Your task to perform on an android device: turn off location history Image 0: 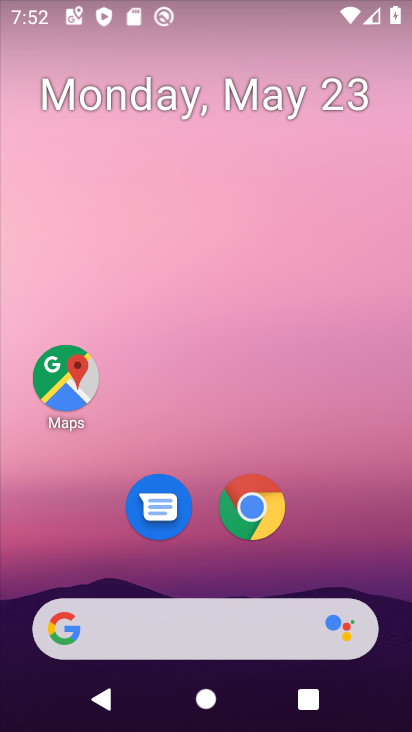
Step 0: drag from (349, 542) to (304, 192)
Your task to perform on an android device: turn off location history Image 1: 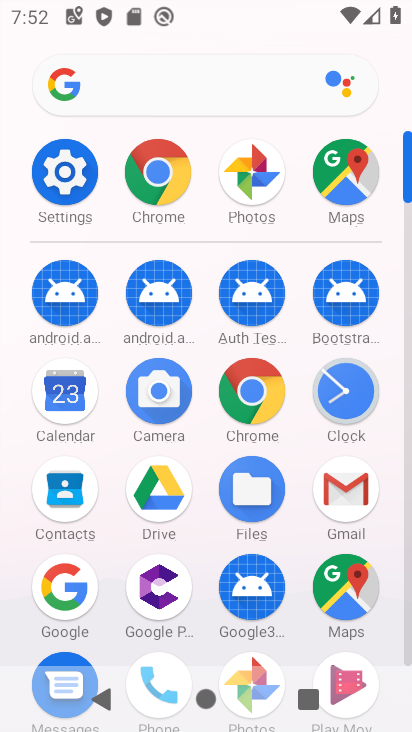
Step 1: click (58, 177)
Your task to perform on an android device: turn off location history Image 2: 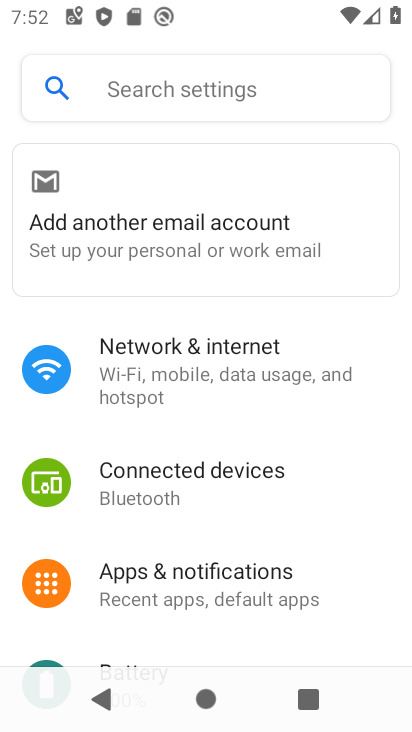
Step 2: drag from (316, 593) to (307, 185)
Your task to perform on an android device: turn off location history Image 3: 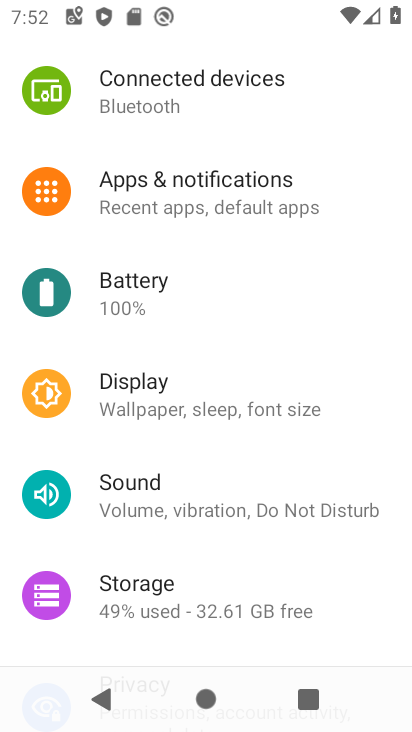
Step 3: drag from (258, 607) to (273, 241)
Your task to perform on an android device: turn off location history Image 4: 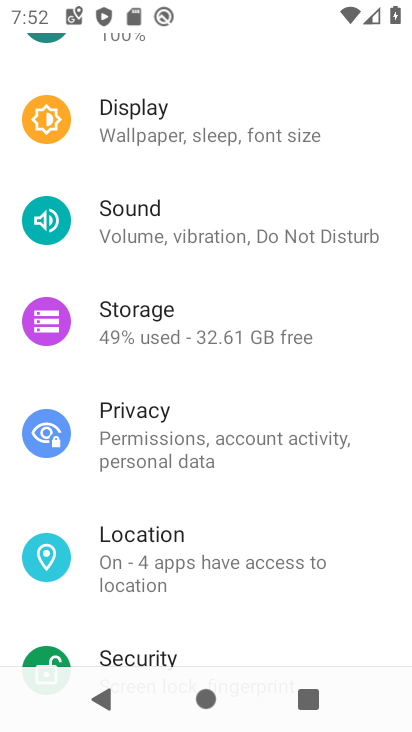
Step 4: click (167, 574)
Your task to perform on an android device: turn off location history Image 5: 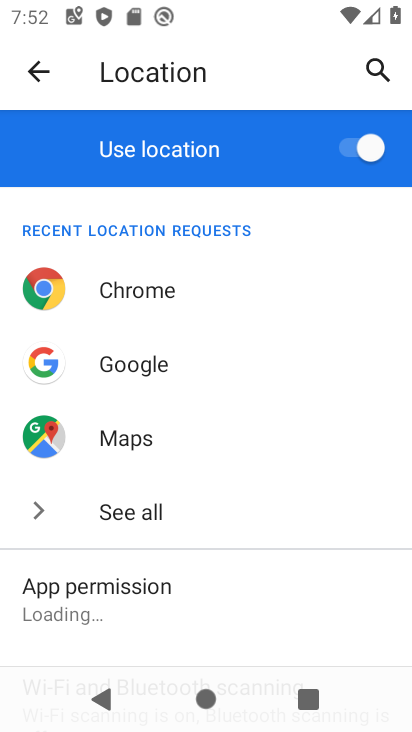
Step 5: drag from (176, 617) to (250, 285)
Your task to perform on an android device: turn off location history Image 6: 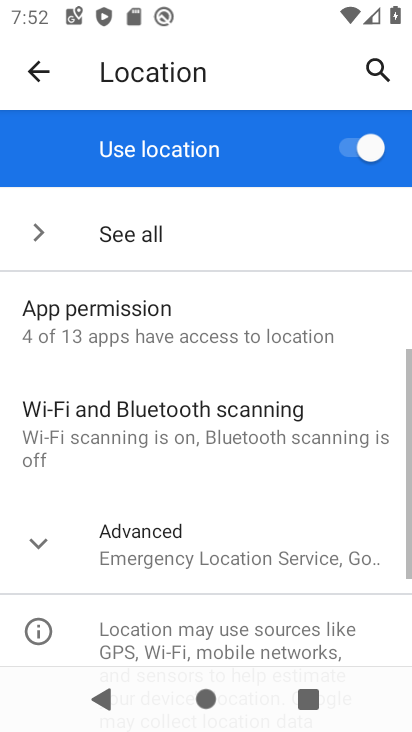
Step 6: drag from (197, 600) to (245, 291)
Your task to perform on an android device: turn off location history Image 7: 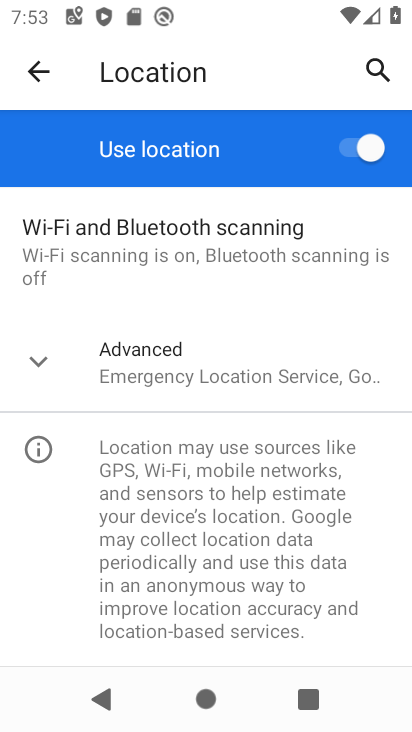
Step 7: click (264, 376)
Your task to perform on an android device: turn off location history Image 8: 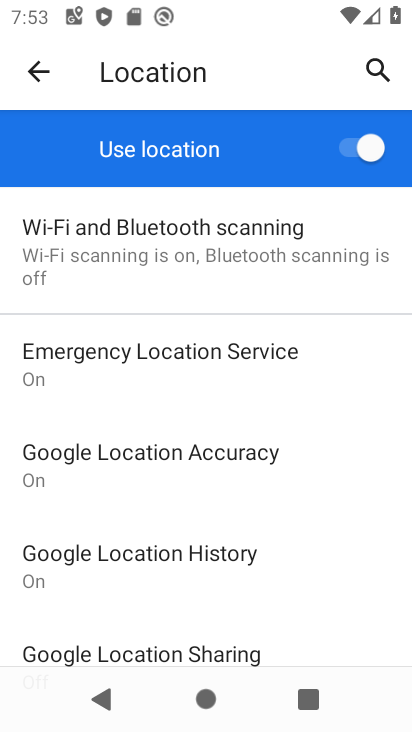
Step 8: click (65, 566)
Your task to perform on an android device: turn off location history Image 9: 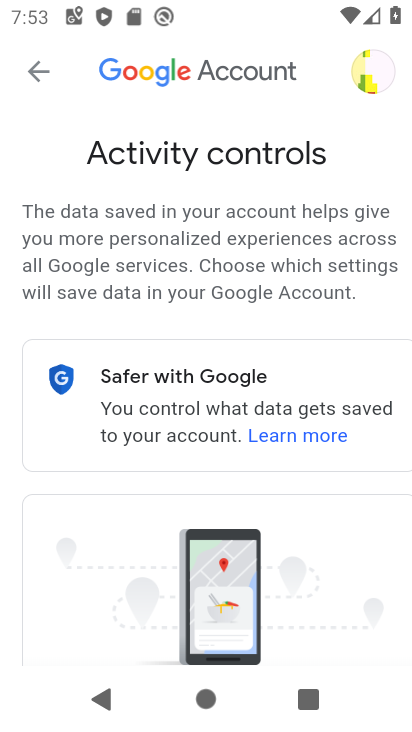
Step 9: drag from (312, 562) to (326, 264)
Your task to perform on an android device: turn off location history Image 10: 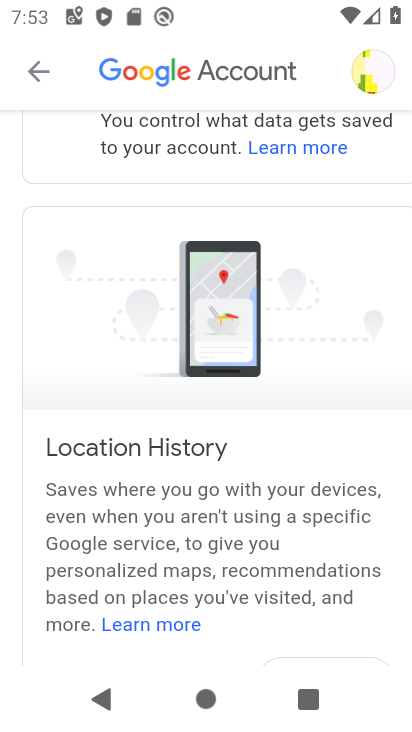
Step 10: drag from (239, 616) to (273, 266)
Your task to perform on an android device: turn off location history Image 11: 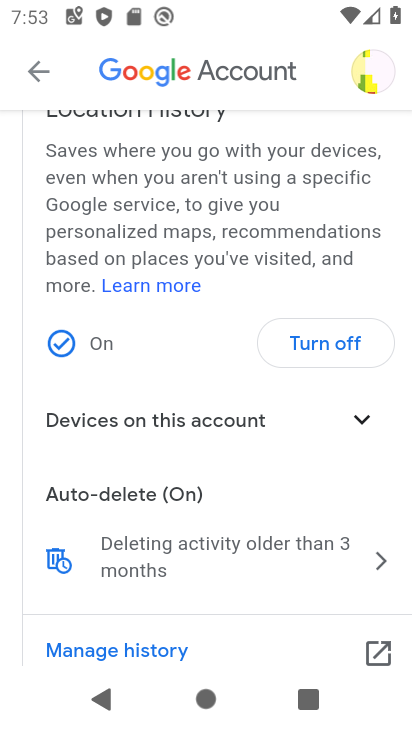
Step 11: click (323, 348)
Your task to perform on an android device: turn off location history Image 12: 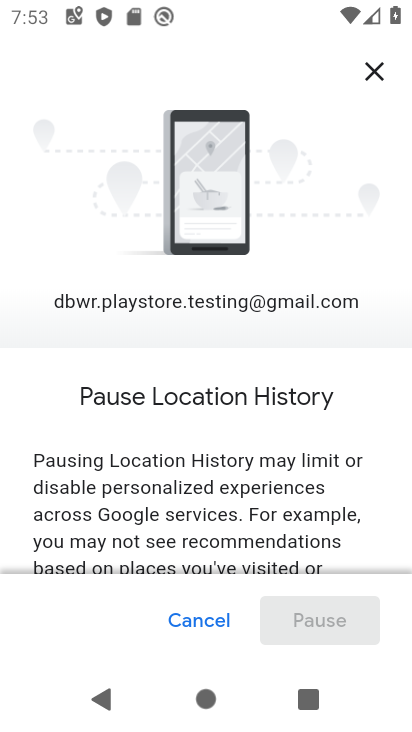
Step 12: drag from (277, 530) to (292, 2)
Your task to perform on an android device: turn off location history Image 13: 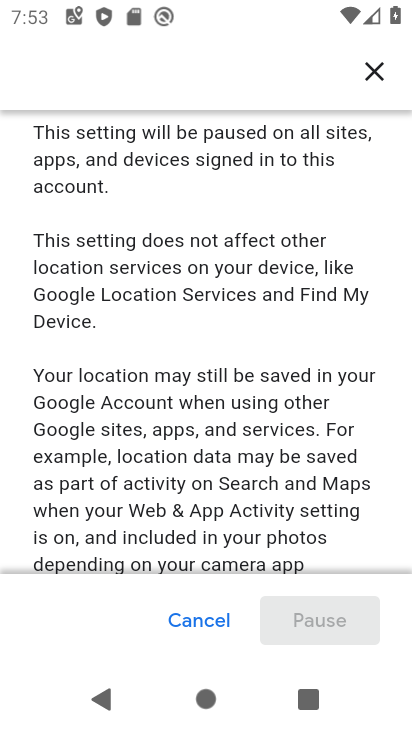
Step 13: drag from (316, 516) to (290, 161)
Your task to perform on an android device: turn off location history Image 14: 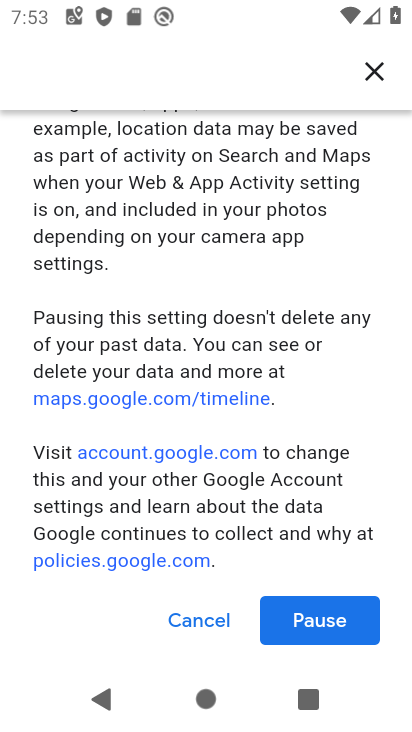
Step 14: click (338, 616)
Your task to perform on an android device: turn off location history Image 15: 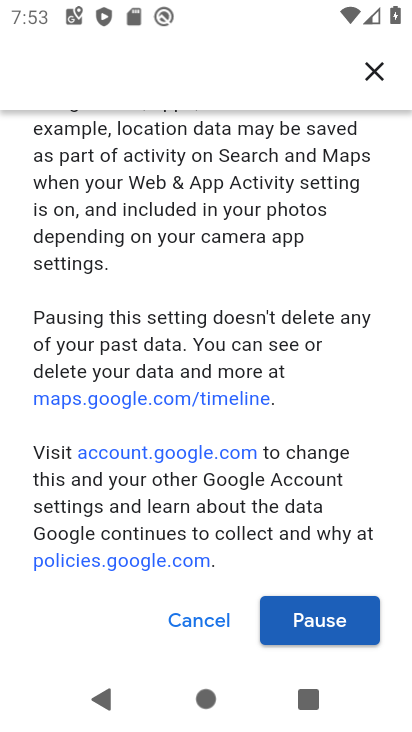
Step 15: click (337, 616)
Your task to perform on an android device: turn off location history Image 16: 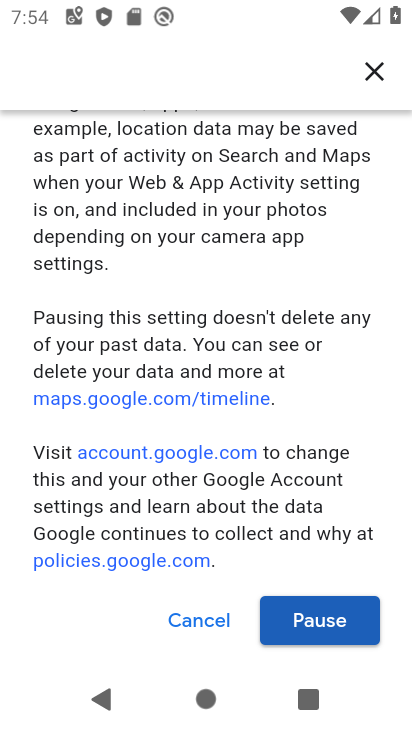
Step 16: click (317, 619)
Your task to perform on an android device: turn off location history Image 17: 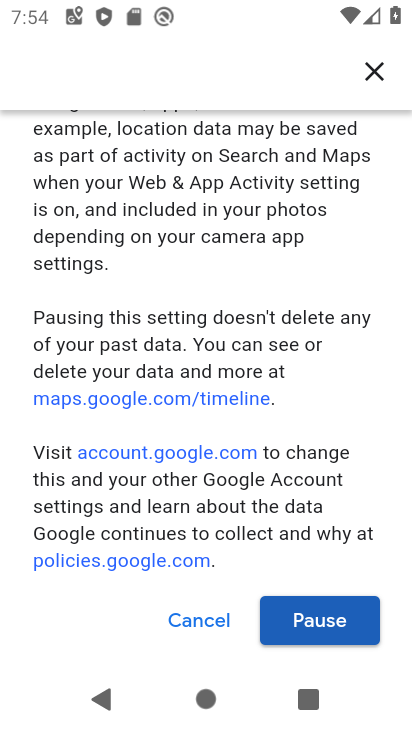
Step 17: click (317, 607)
Your task to perform on an android device: turn off location history Image 18: 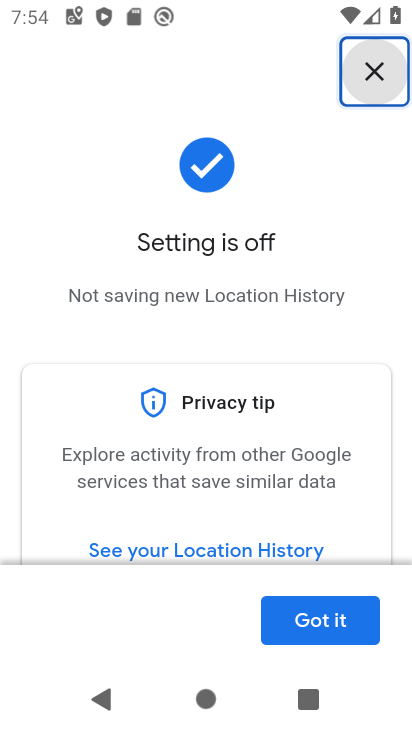
Step 18: task complete